Your task to perform on an android device: turn on notifications settings in the gmail app Image 0: 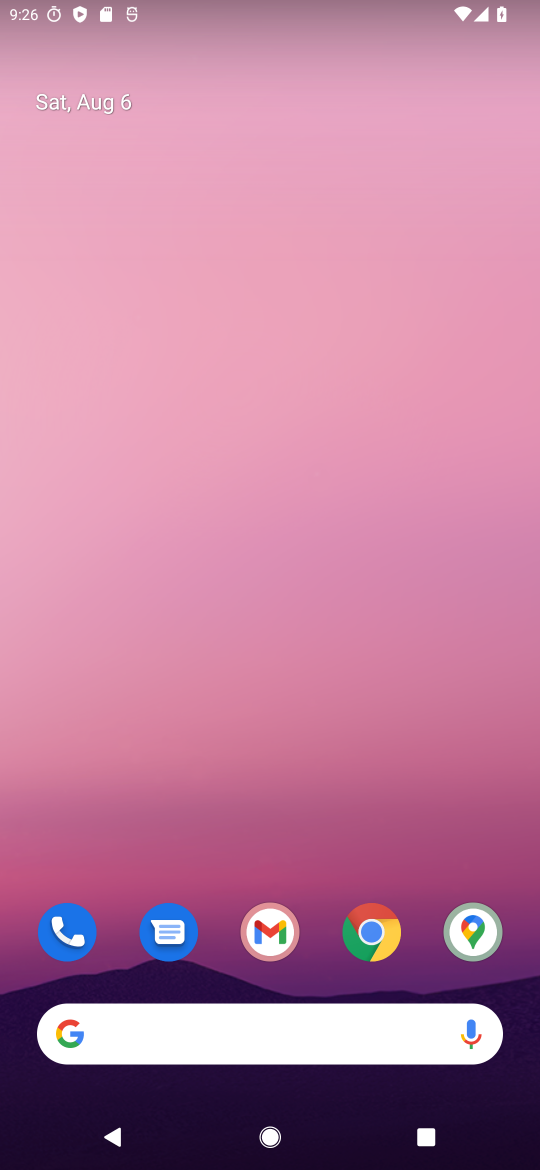
Step 0: click (262, 930)
Your task to perform on an android device: turn on notifications settings in the gmail app Image 1: 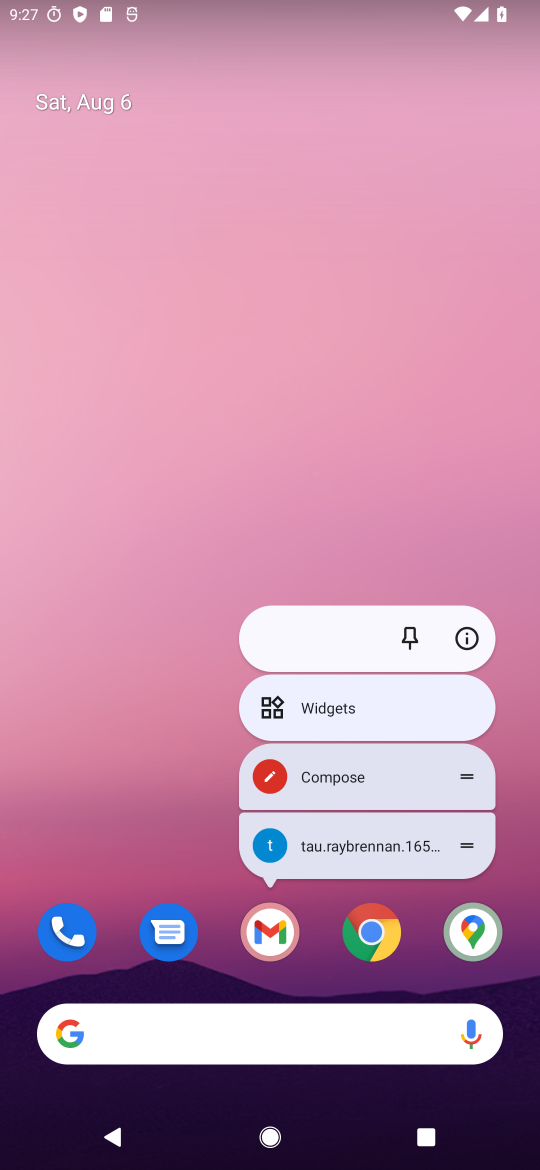
Step 1: click (263, 918)
Your task to perform on an android device: turn on notifications settings in the gmail app Image 2: 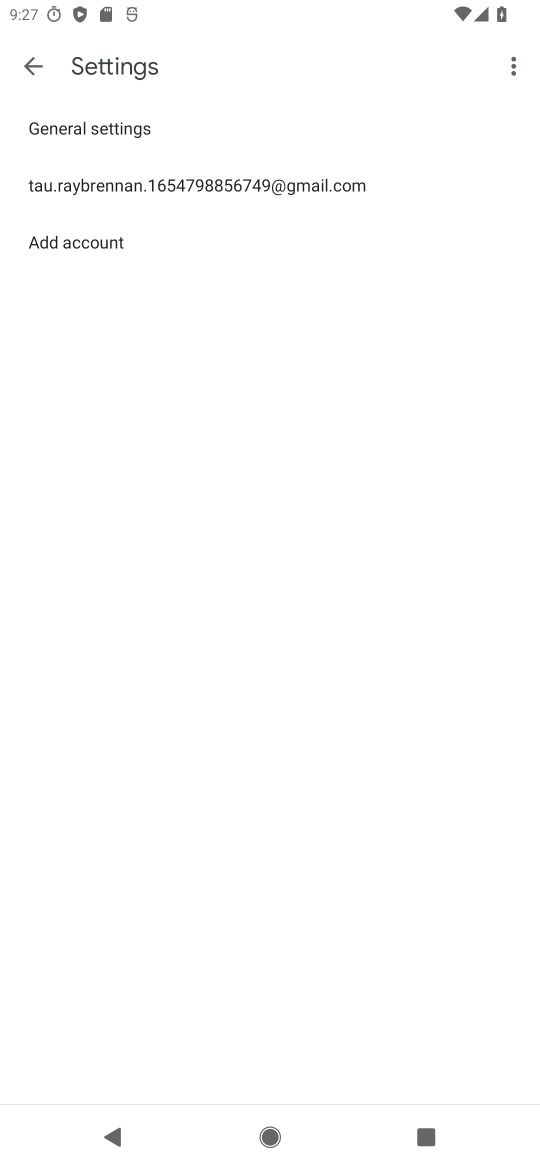
Step 2: click (268, 182)
Your task to perform on an android device: turn on notifications settings in the gmail app Image 3: 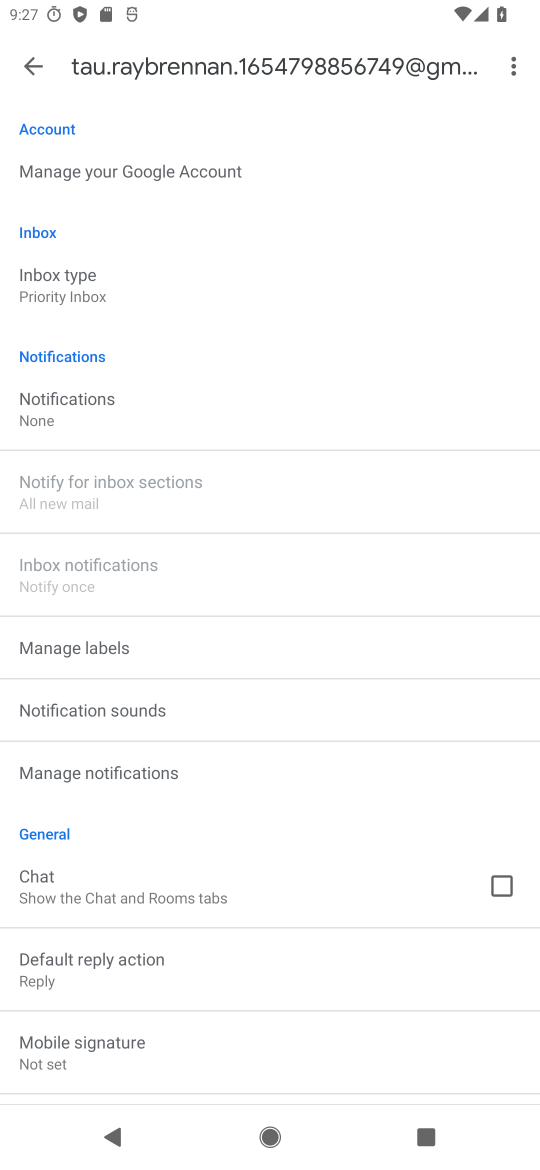
Step 3: click (81, 408)
Your task to perform on an android device: turn on notifications settings in the gmail app Image 4: 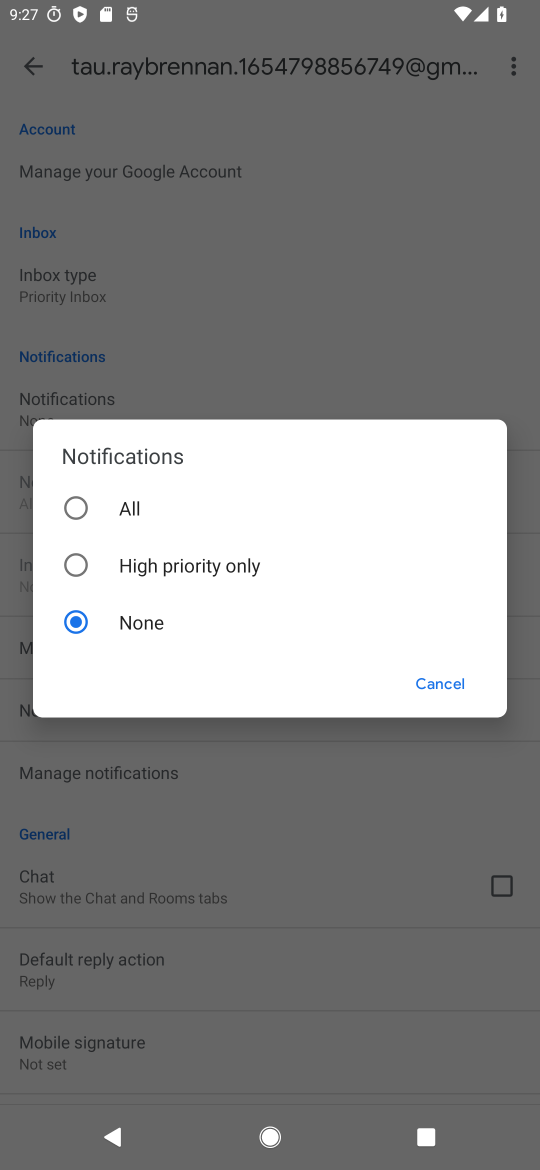
Step 4: click (79, 501)
Your task to perform on an android device: turn on notifications settings in the gmail app Image 5: 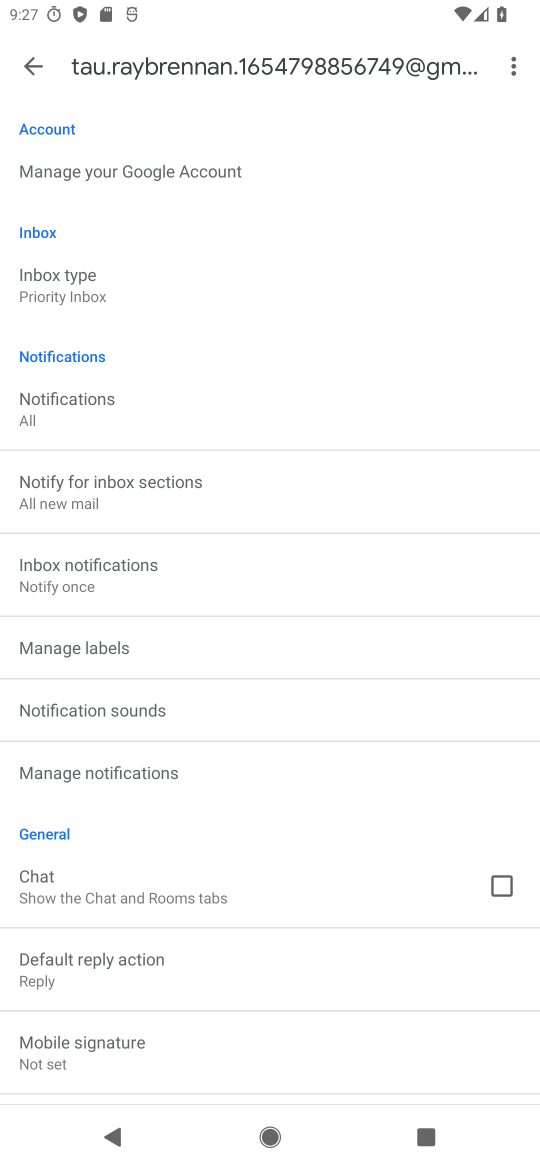
Step 5: task complete